Your task to perform on an android device: What's the weather today? Image 0: 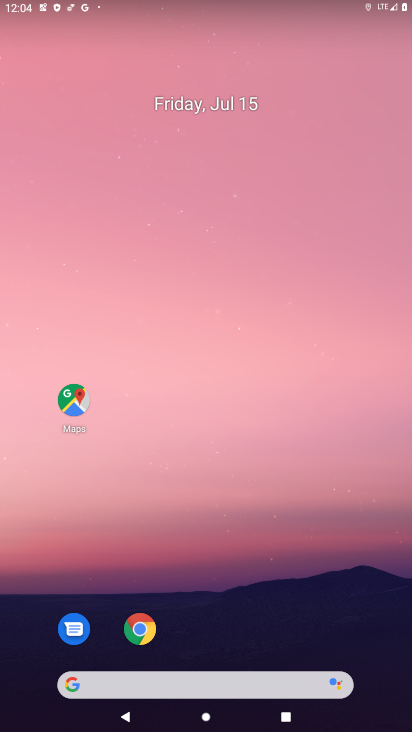
Step 0: drag from (228, 126) to (252, 73)
Your task to perform on an android device: What's the weather today? Image 1: 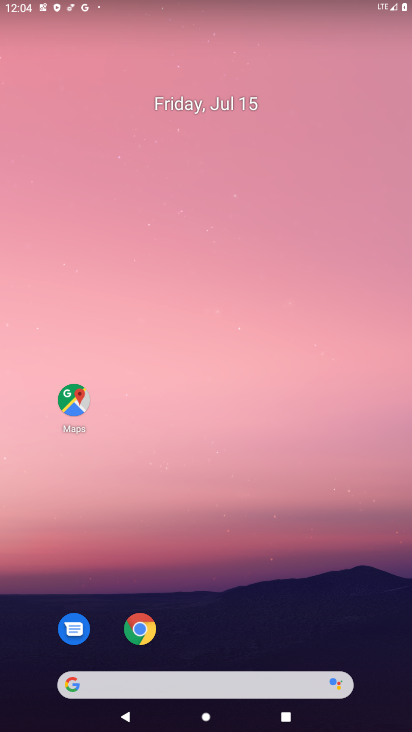
Step 1: click (139, 692)
Your task to perform on an android device: What's the weather today? Image 2: 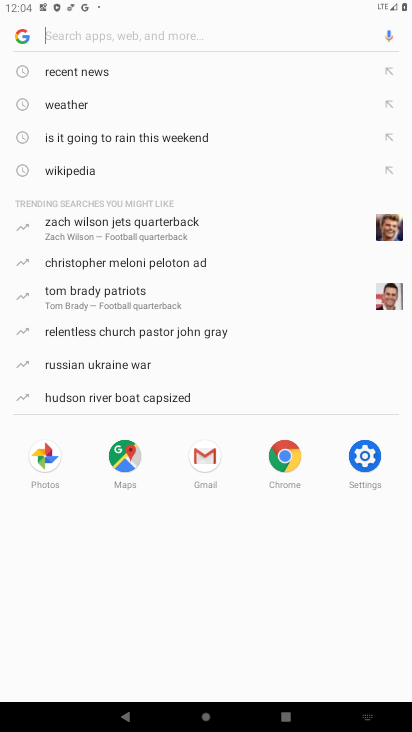
Step 2: type "What's the weather today?"
Your task to perform on an android device: What's the weather today? Image 3: 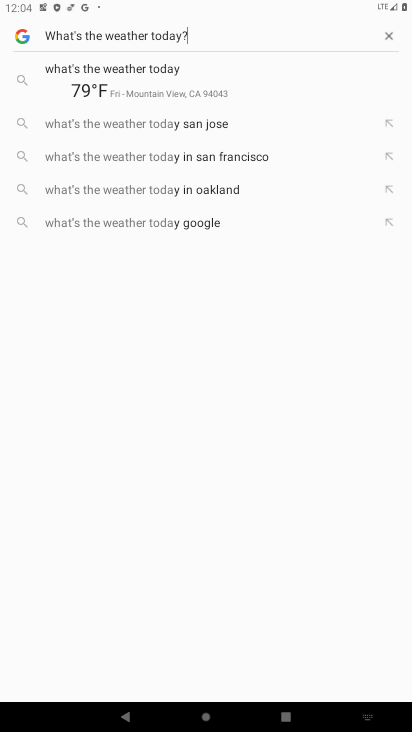
Step 3: type ""
Your task to perform on an android device: What's the weather today? Image 4: 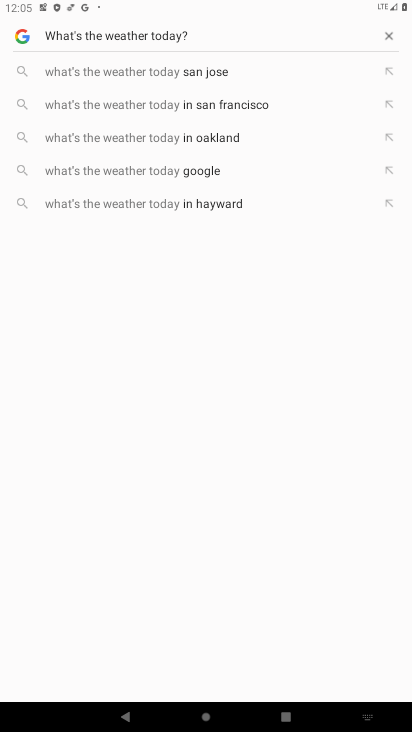
Step 4: task complete